Your task to perform on an android device: change the clock display to analog Image 0: 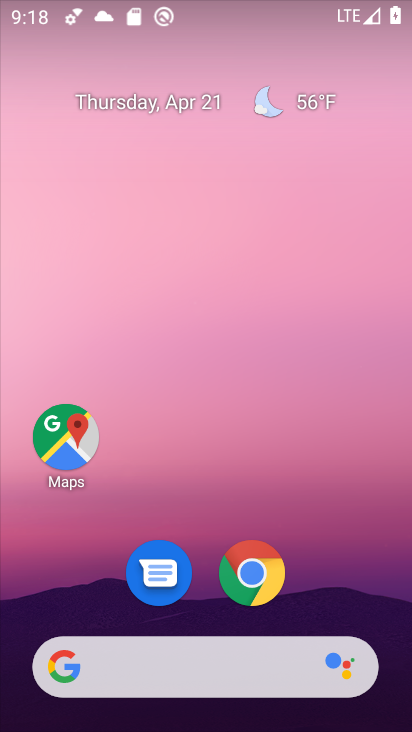
Step 0: drag from (333, 602) to (406, 161)
Your task to perform on an android device: change the clock display to analog Image 1: 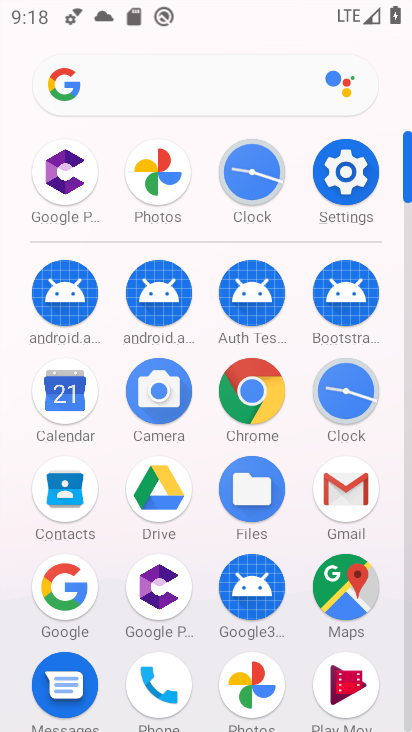
Step 1: click (354, 397)
Your task to perform on an android device: change the clock display to analog Image 2: 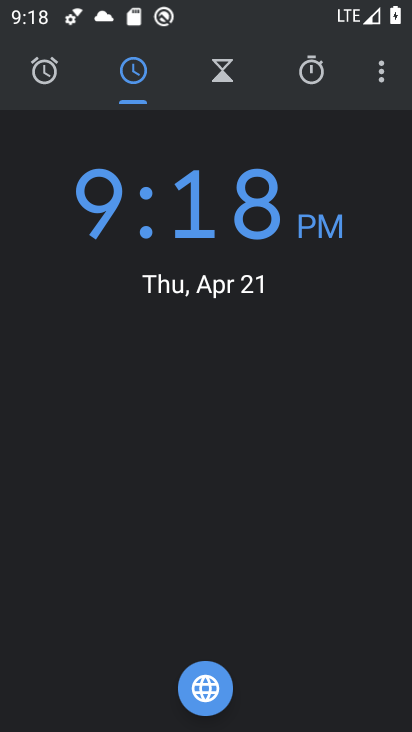
Step 2: click (385, 64)
Your task to perform on an android device: change the clock display to analog Image 3: 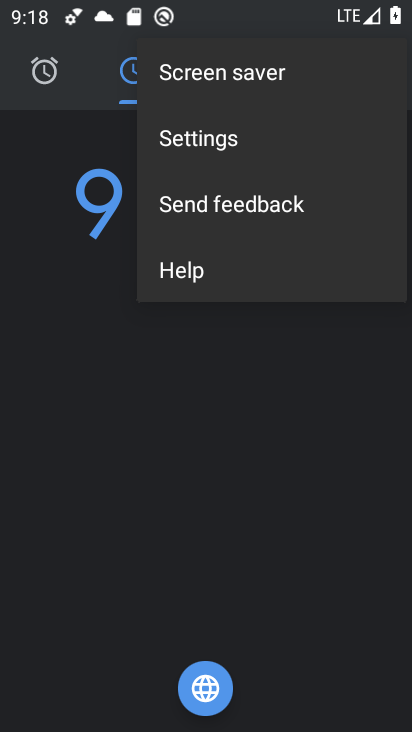
Step 3: click (200, 142)
Your task to perform on an android device: change the clock display to analog Image 4: 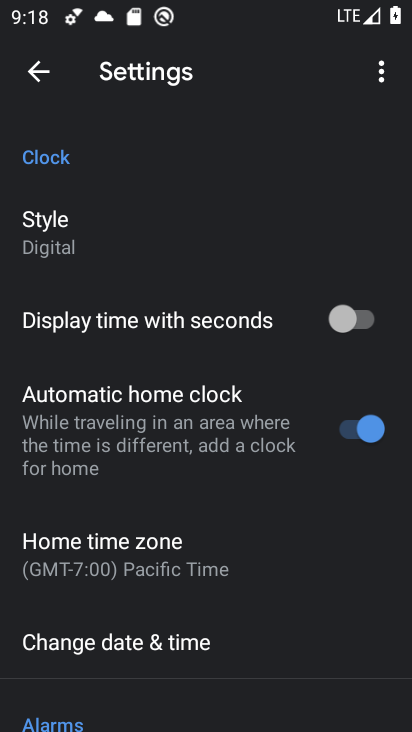
Step 4: click (90, 242)
Your task to perform on an android device: change the clock display to analog Image 5: 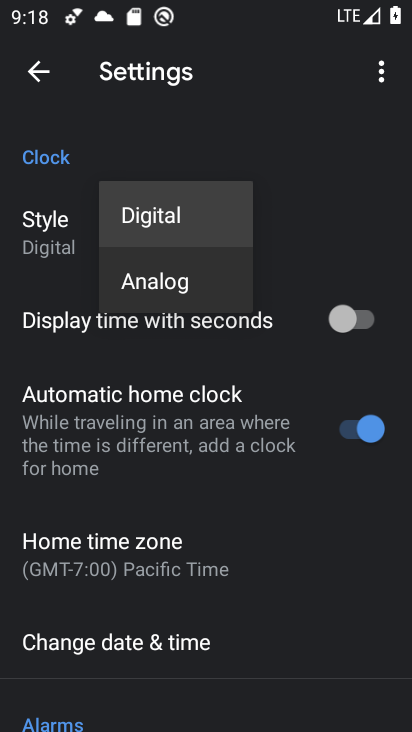
Step 5: click (173, 284)
Your task to perform on an android device: change the clock display to analog Image 6: 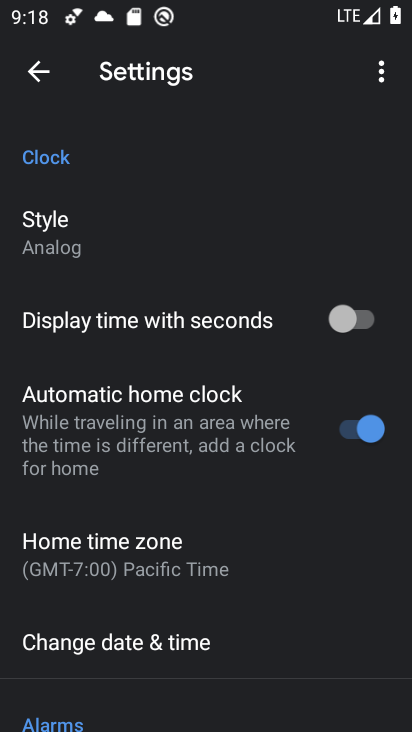
Step 6: task complete